Your task to perform on an android device: turn off smart reply in the gmail app Image 0: 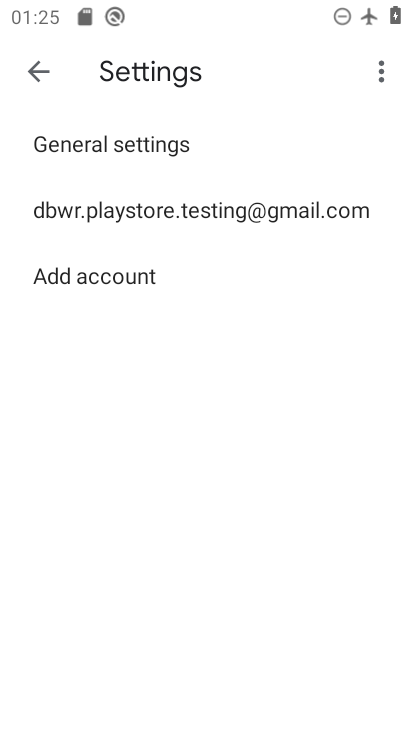
Step 0: press home button
Your task to perform on an android device: turn off smart reply in the gmail app Image 1: 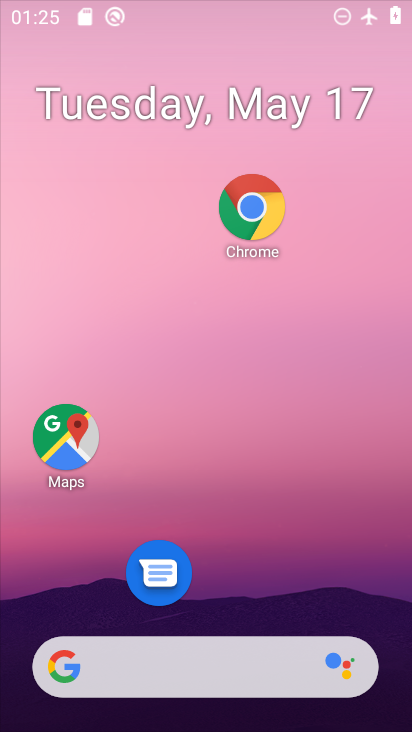
Step 1: drag from (279, 636) to (266, 17)
Your task to perform on an android device: turn off smart reply in the gmail app Image 2: 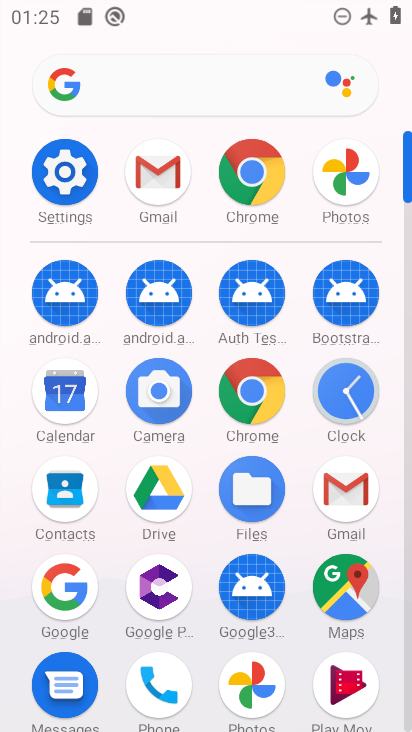
Step 2: click (347, 496)
Your task to perform on an android device: turn off smart reply in the gmail app Image 3: 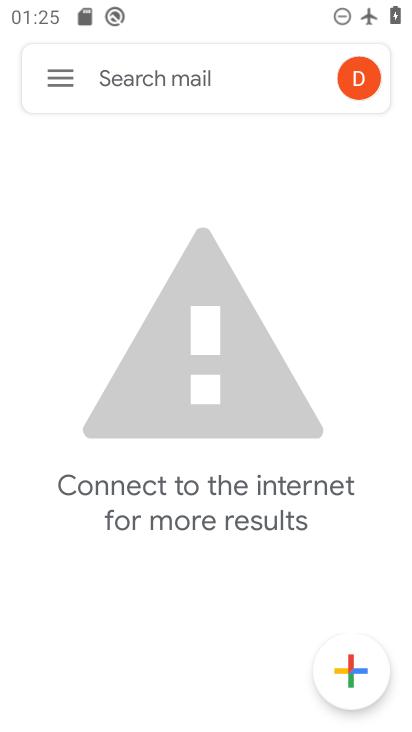
Step 3: click (63, 85)
Your task to perform on an android device: turn off smart reply in the gmail app Image 4: 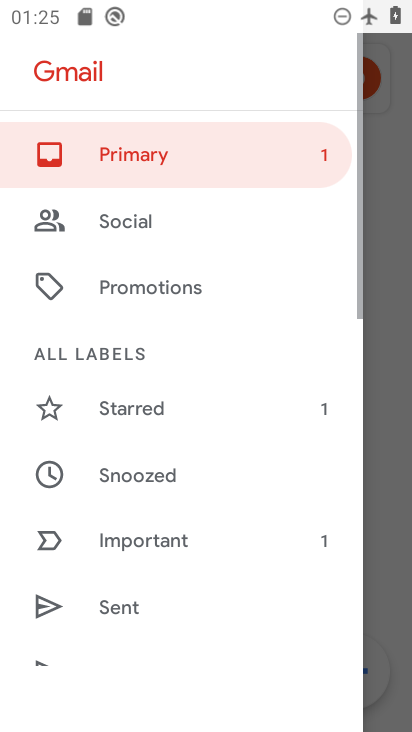
Step 4: drag from (197, 614) to (226, 79)
Your task to perform on an android device: turn off smart reply in the gmail app Image 5: 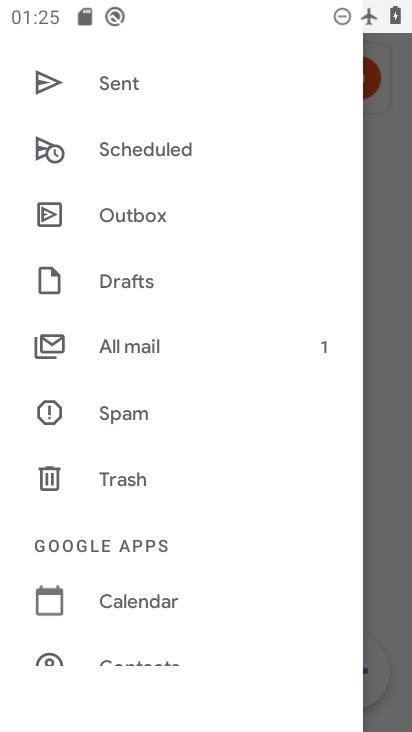
Step 5: drag from (176, 653) to (212, 263)
Your task to perform on an android device: turn off smart reply in the gmail app Image 6: 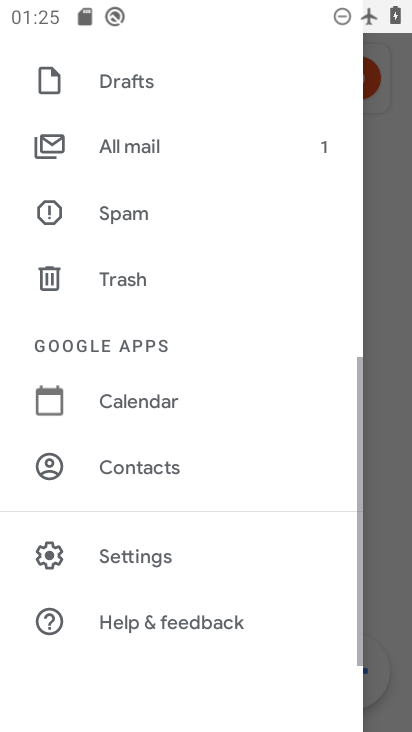
Step 6: click (161, 549)
Your task to perform on an android device: turn off smart reply in the gmail app Image 7: 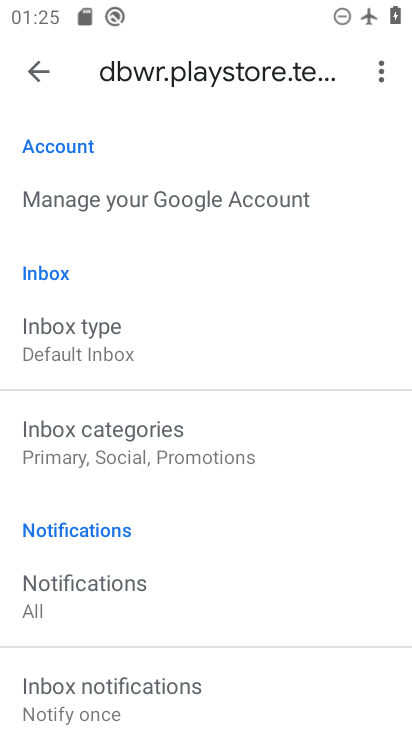
Step 7: task complete